Your task to perform on an android device: turn on translation in the chrome app Image 0: 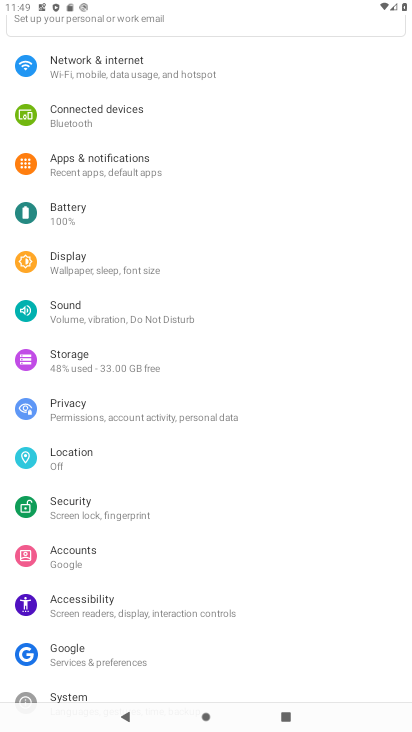
Step 0: press home button
Your task to perform on an android device: turn on translation in the chrome app Image 1: 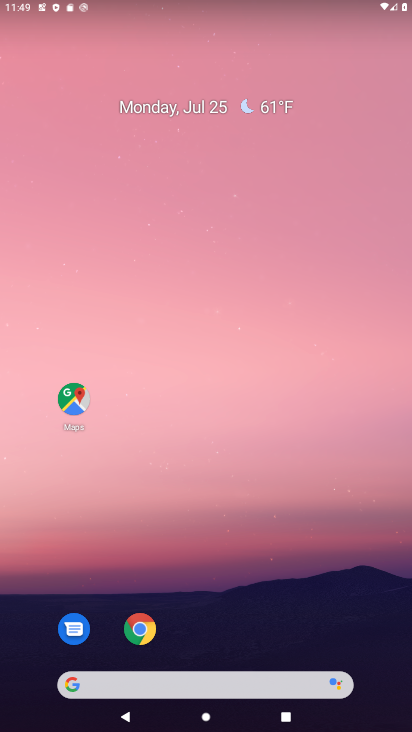
Step 1: click (143, 639)
Your task to perform on an android device: turn on translation in the chrome app Image 2: 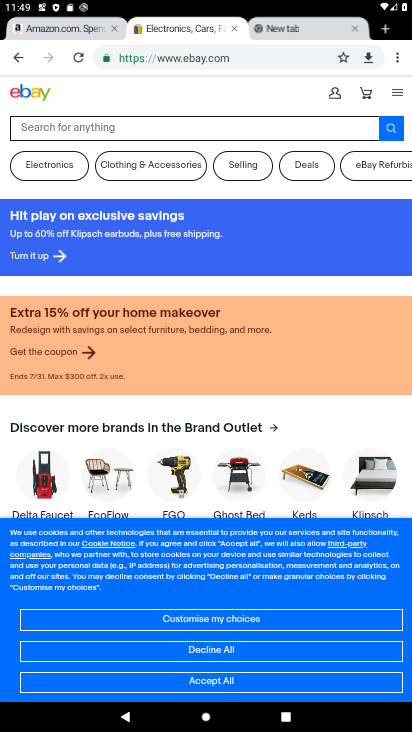
Step 2: click (395, 57)
Your task to perform on an android device: turn on translation in the chrome app Image 3: 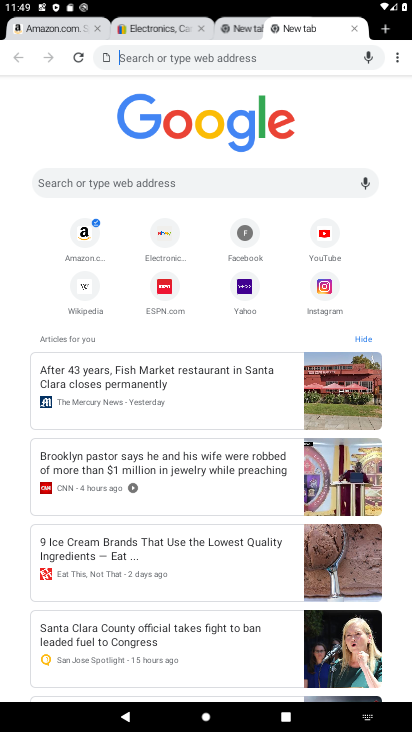
Step 3: drag from (402, 61) to (298, 261)
Your task to perform on an android device: turn on translation in the chrome app Image 4: 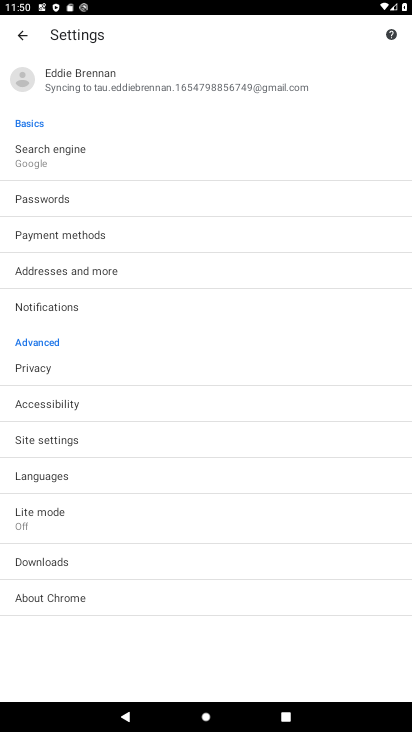
Step 4: click (91, 483)
Your task to perform on an android device: turn on translation in the chrome app Image 5: 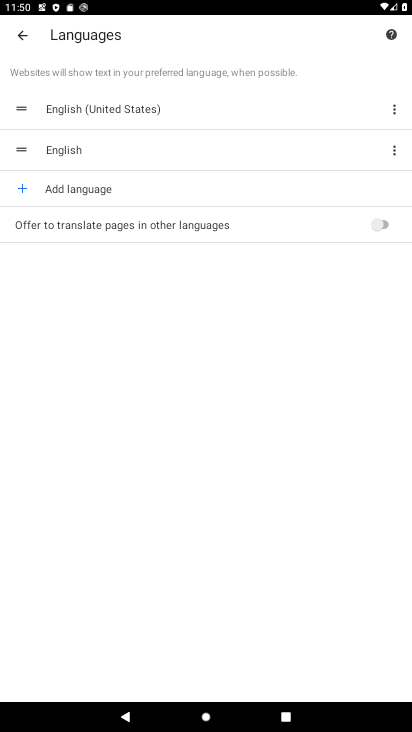
Step 5: click (379, 216)
Your task to perform on an android device: turn on translation in the chrome app Image 6: 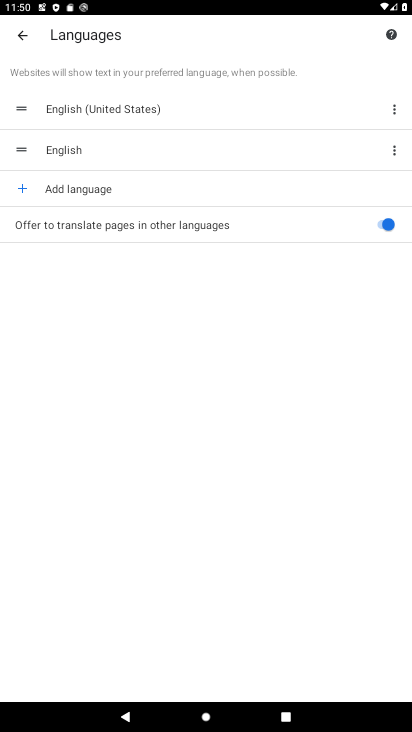
Step 6: task complete